Your task to perform on an android device: Show me popular games on the Play Store Image 0: 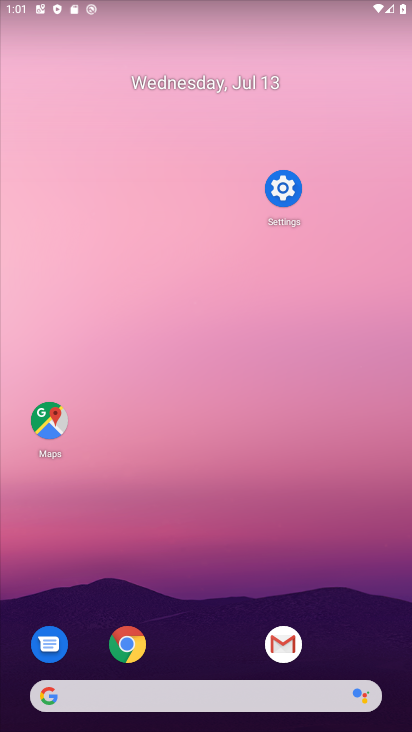
Step 0: drag from (250, 698) to (230, 259)
Your task to perform on an android device: Show me popular games on the Play Store Image 1: 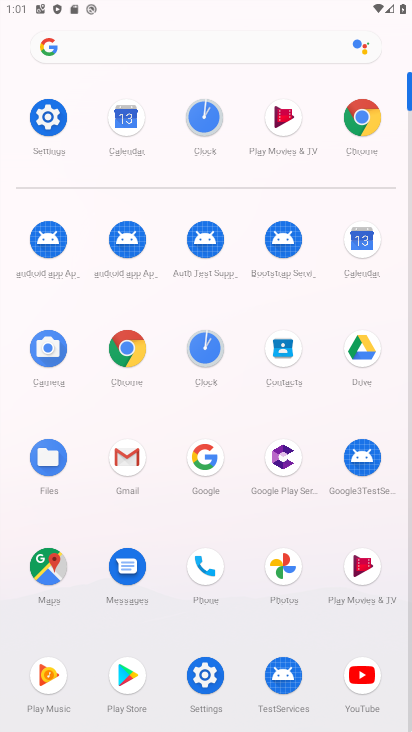
Step 1: click (126, 665)
Your task to perform on an android device: Show me popular games on the Play Store Image 2: 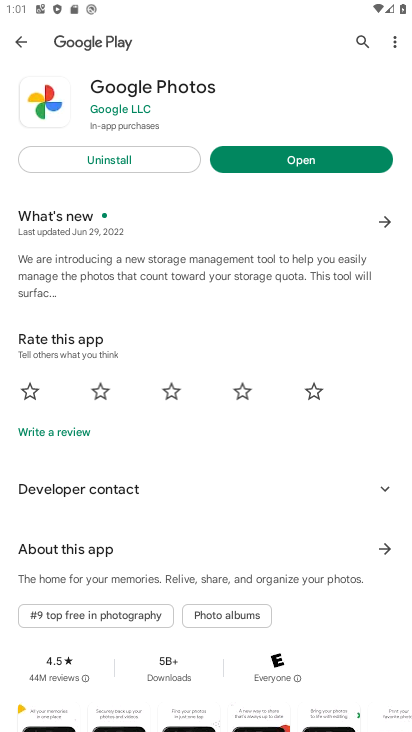
Step 2: click (349, 44)
Your task to perform on an android device: Show me popular games on the Play Store Image 3: 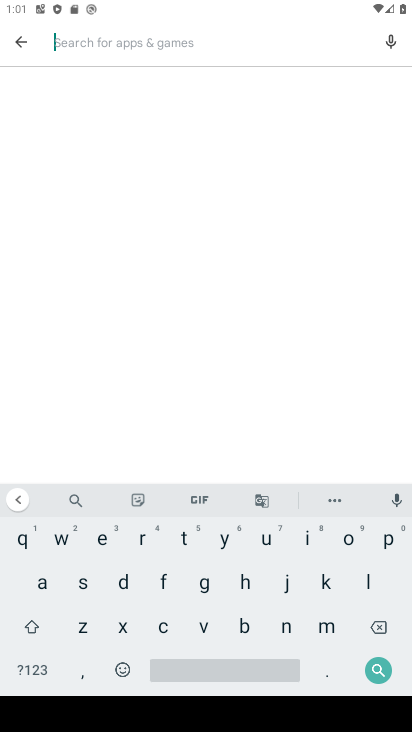
Step 3: click (389, 547)
Your task to perform on an android device: Show me popular games on the Play Store Image 4: 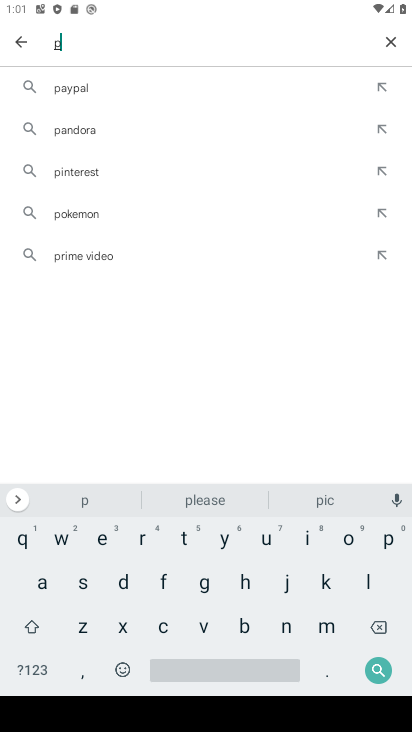
Step 4: click (345, 539)
Your task to perform on an android device: Show me popular games on the Play Store Image 5: 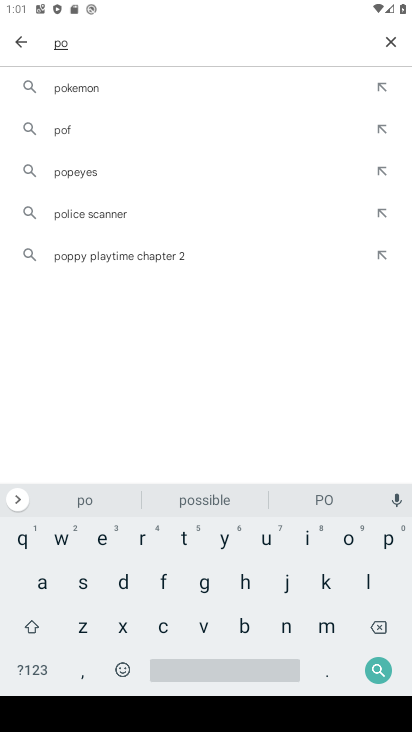
Step 5: click (391, 540)
Your task to perform on an android device: Show me popular games on the Play Store Image 6: 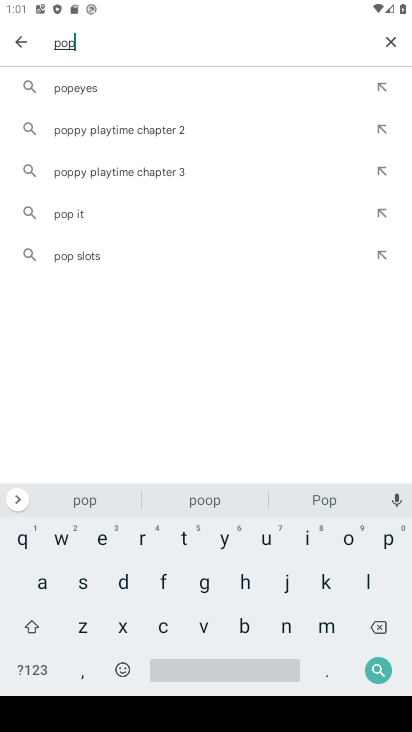
Step 6: click (259, 539)
Your task to perform on an android device: Show me popular games on the Play Store Image 7: 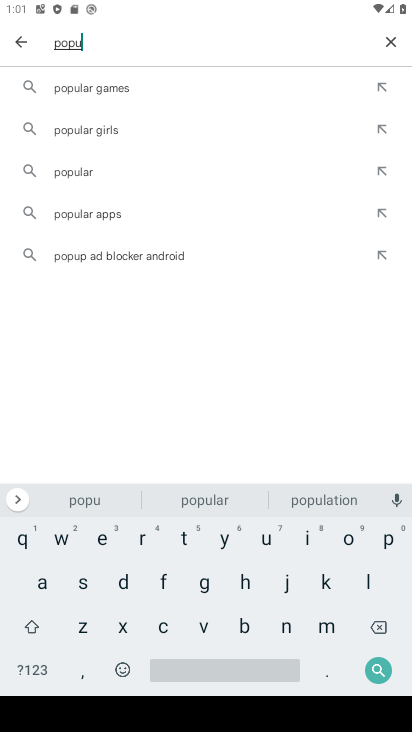
Step 7: click (104, 84)
Your task to perform on an android device: Show me popular games on the Play Store Image 8: 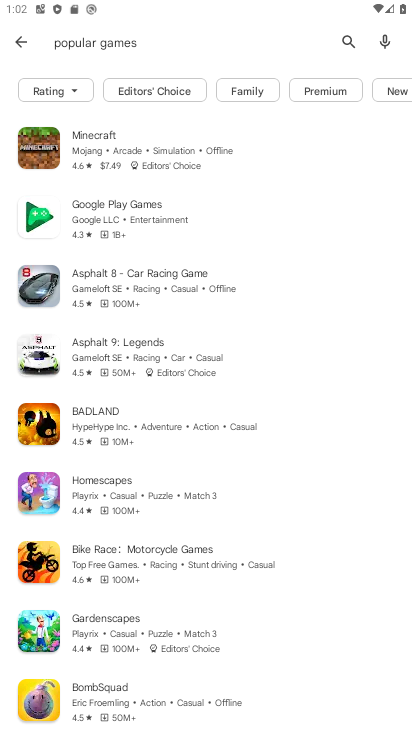
Step 8: task complete